Your task to perform on an android device: Open settings on Google Maps Image 0: 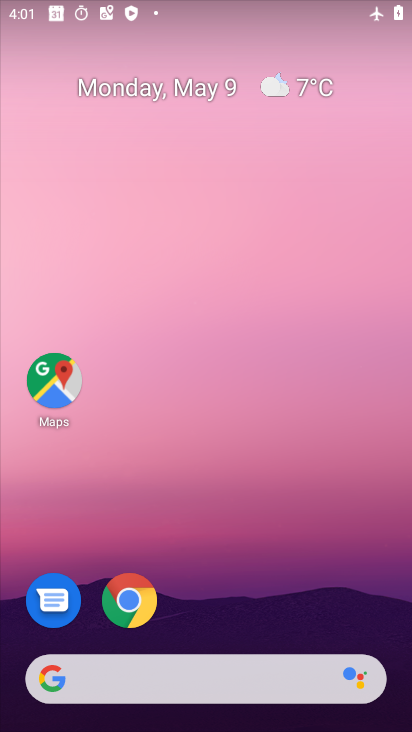
Step 0: drag from (273, 627) to (341, 129)
Your task to perform on an android device: Open settings on Google Maps Image 1: 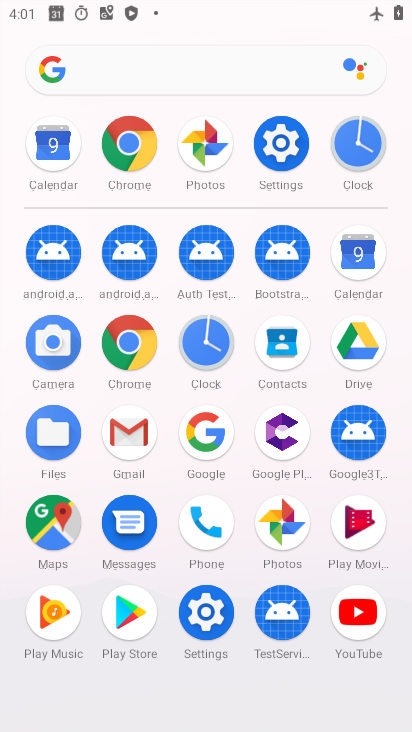
Step 1: click (45, 528)
Your task to perform on an android device: Open settings on Google Maps Image 2: 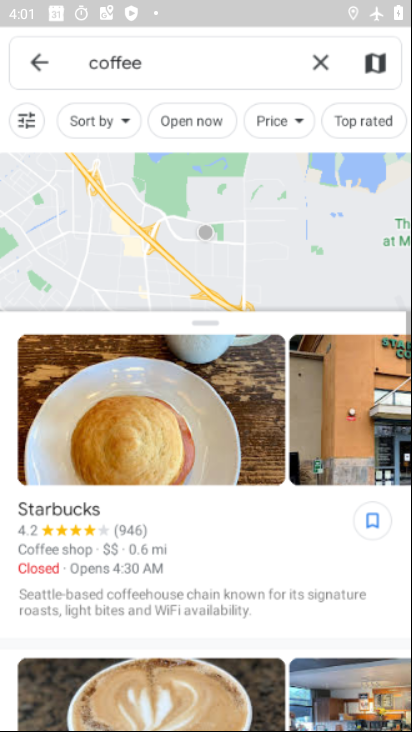
Step 2: task complete